Your task to perform on an android device: Go to network settings Image 0: 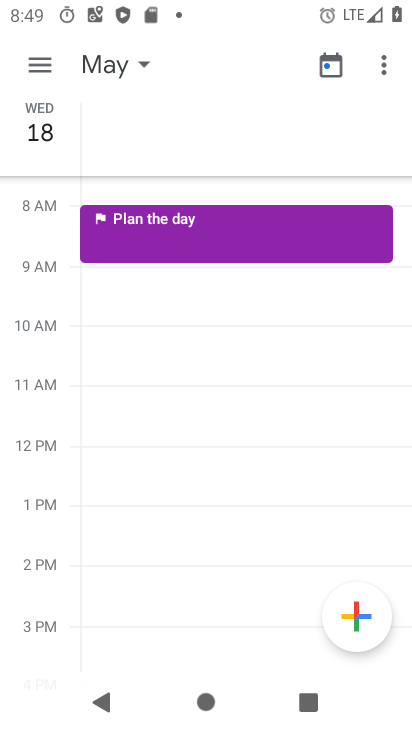
Step 0: press home button
Your task to perform on an android device: Go to network settings Image 1: 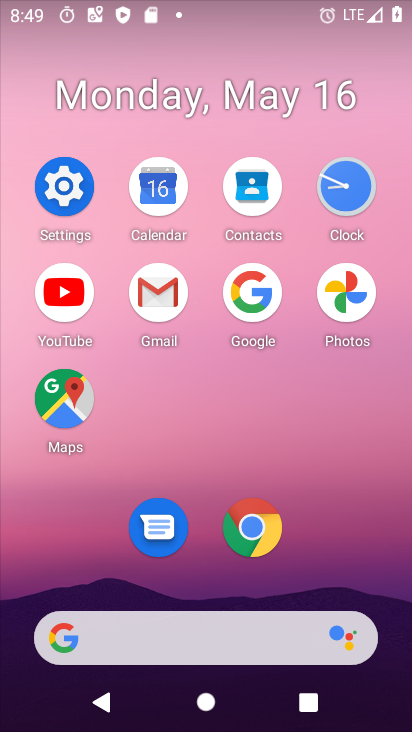
Step 1: click (251, 544)
Your task to perform on an android device: Go to network settings Image 2: 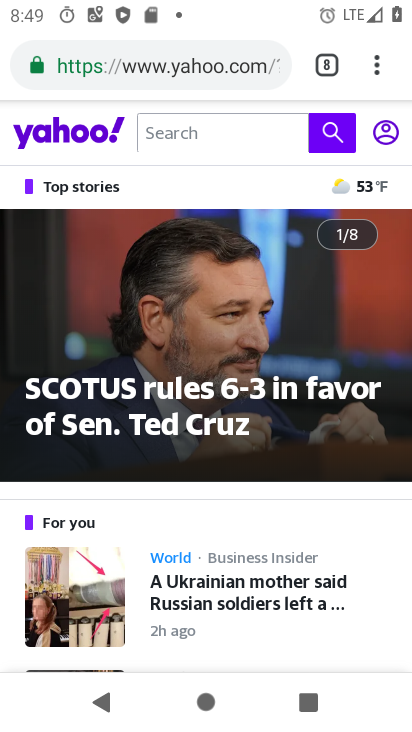
Step 2: click (329, 70)
Your task to perform on an android device: Go to network settings Image 3: 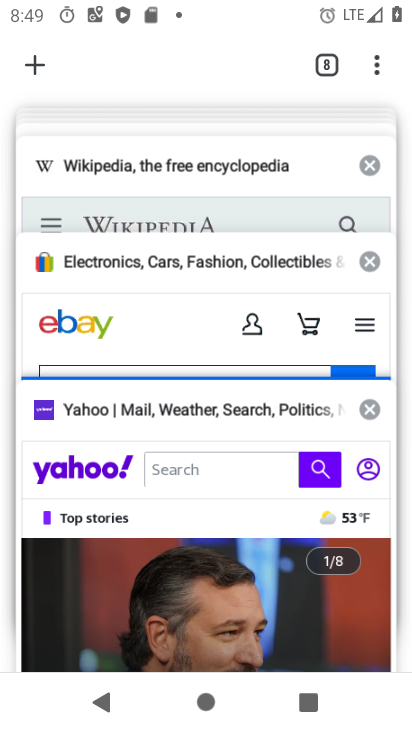
Step 3: click (24, 68)
Your task to perform on an android device: Go to network settings Image 4: 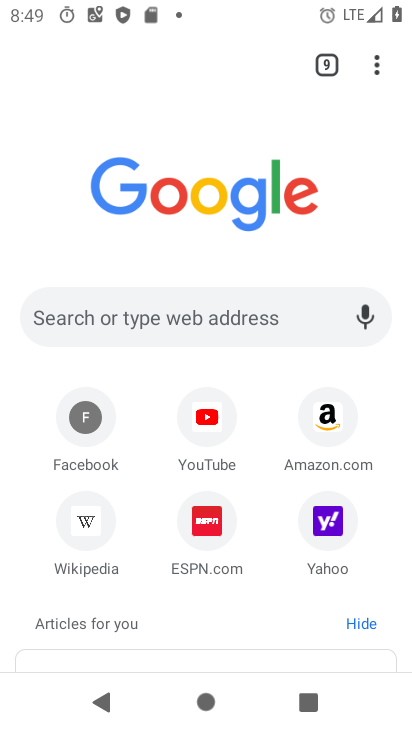
Step 4: click (168, 316)
Your task to perform on an android device: Go to network settings Image 5: 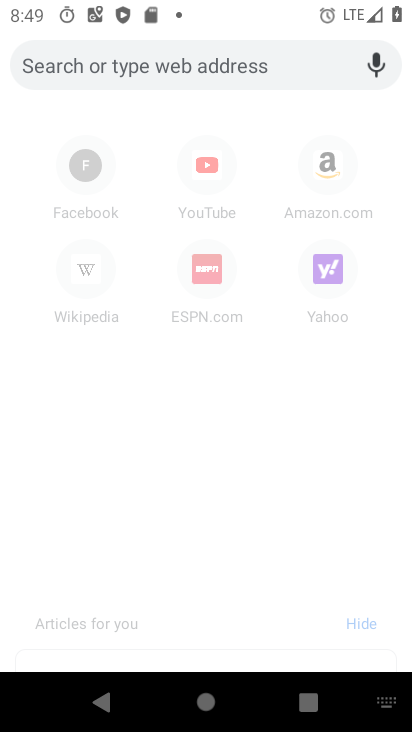
Step 5: type "cnn"
Your task to perform on an android device: Go to network settings Image 6: 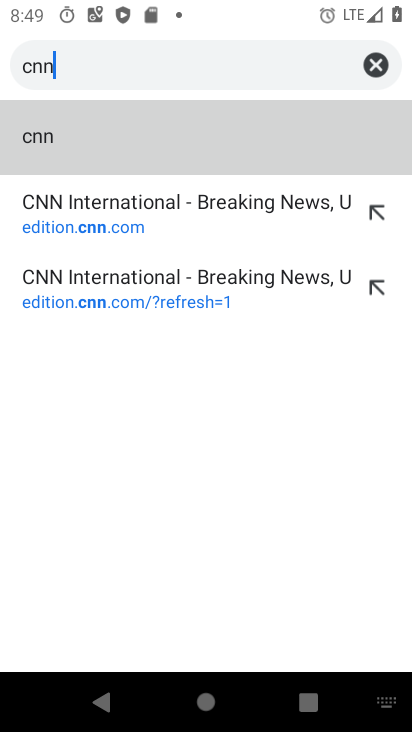
Step 6: click (129, 230)
Your task to perform on an android device: Go to network settings Image 7: 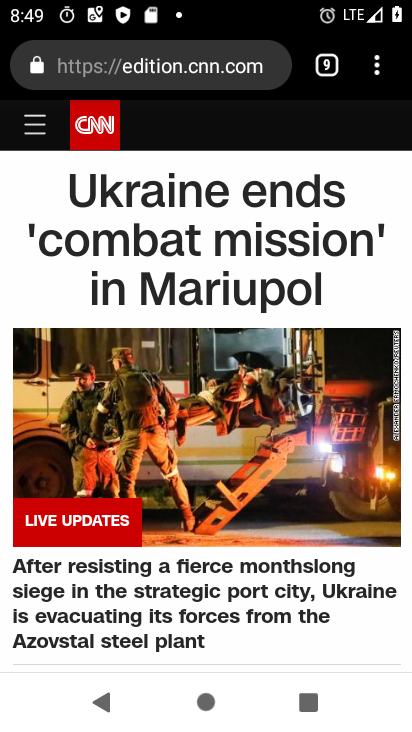
Step 7: task complete